Your task to perform on an android device: Open notification settings Image 0: 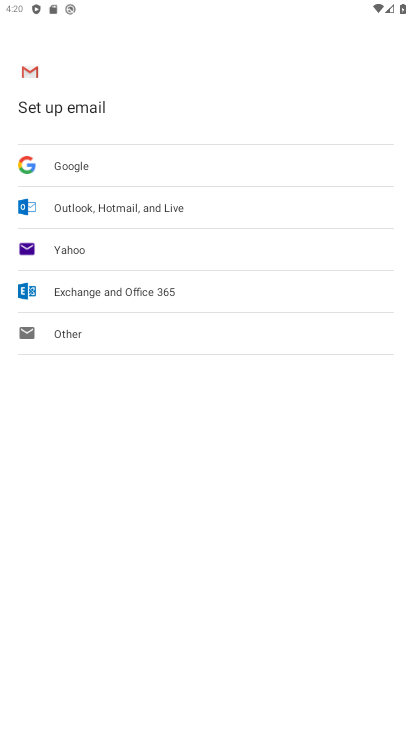
Step 0: press home button
Your task to perform on an android device: Open notification settings Image 1: 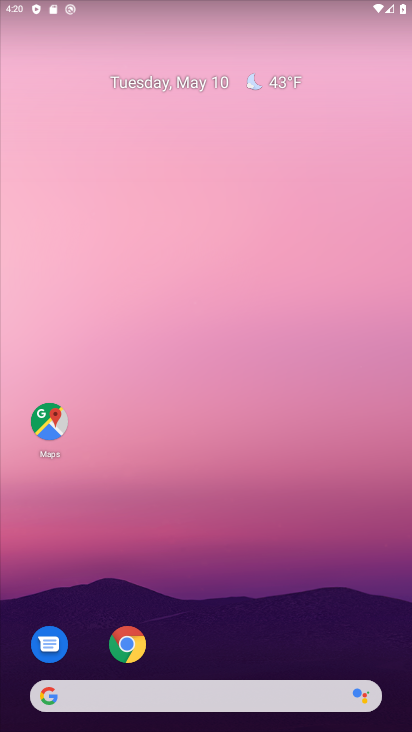
Step 1: drag from (175, 672) to (243, 245)
Your task to perform on an android device: Open notification settings Image 2: 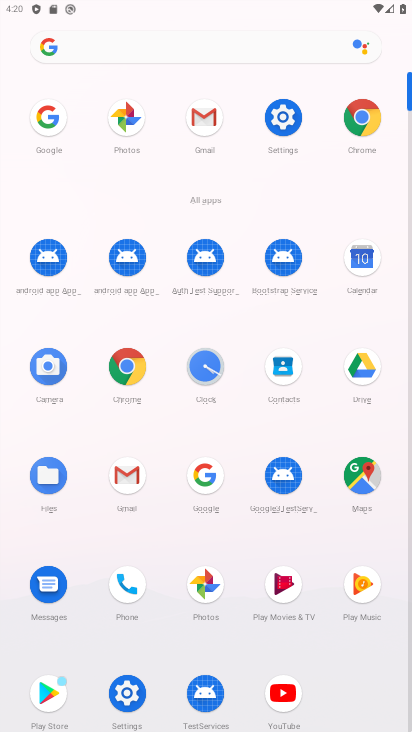
Step 2: click (273, 112)
Your task to perform on an android device: Open notification settings Image 3: 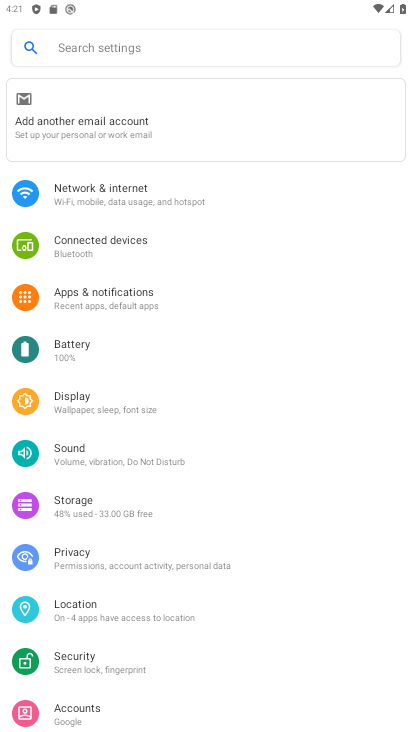
Step 3: click (149, 296)
Your task to perform on an android device: Open notification settings Image 4: 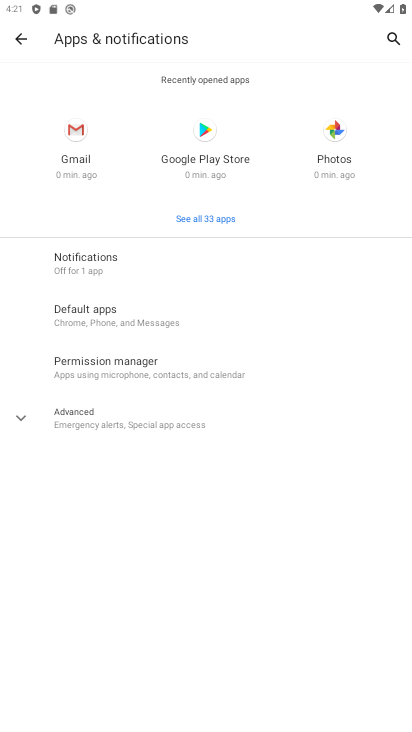
Step 4: click (22, 417)
Your task to perform on an android device: Open notification settings Image 5: 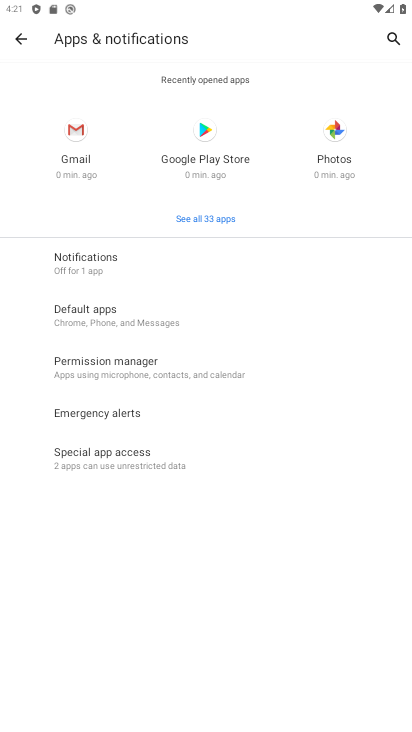
Step 5: task complete